Your task to perform on an android device: View the shopping cart on costco. Search for "usb-c to usb-b" on costco, select the first entry, and add it to the cart. Image 0: 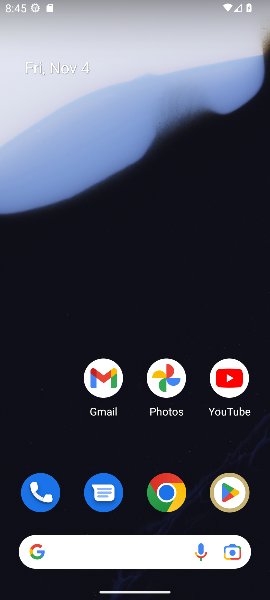
Step 0: drag from (137, 445) to (131, 22)
Your task to perform on an android device: View the shopping cart on costco. Search for "usb-c to usb-b" on costco, select the first entry, and add it to the cart. Image 1: 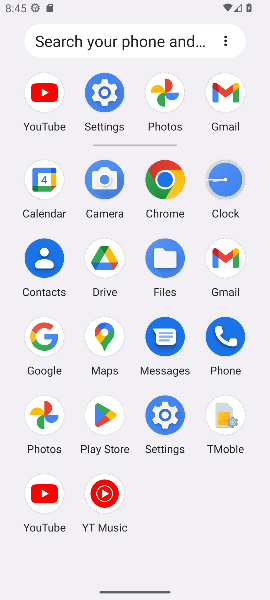
Step 1: click (163, 181)
Your task to perform on an android device: View the shopping cart on costco. Search for "usb-c to usb-b" on costco, select the first entry, and add it to the cart. Image 2: 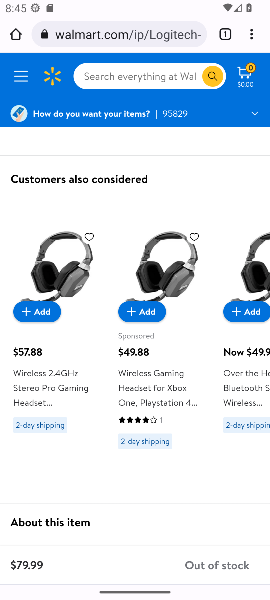
Step 2: click (143, 28)
Your task to perform on an android device: View the shopping cart on costco. Search for "usb-c to usb-b" on costco, select the first entry, and add it to the cart. Image 3: 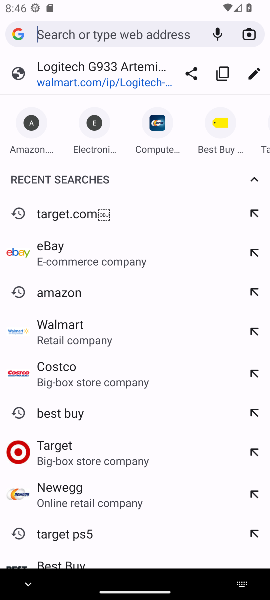
Step 3: type "costco.com"
Your task to perform on an android device: View the shopping cart on costco. Search for "usb-c to usb-b" on costco, select the first entry, and add it to the cart. Image 4: 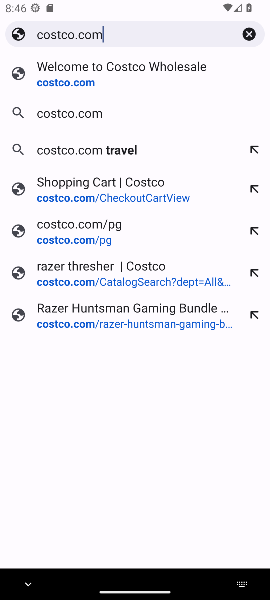
Step 4: press enter
Your task to perform on an android device: View the shopping cart on costco. Search for "usb-c to usb-b" on costco, select the first entry, and add it to the cart. Image 5: 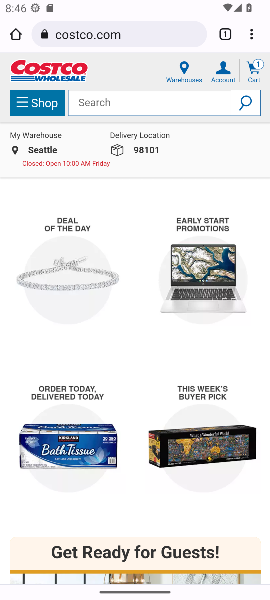
Step 5: click (253, 68)
Your task to perform on an android device: View the shopping cart on costco. Search for "usb-c to usb-b" on costco, select the first entry, and add it to the cart. Image 6: 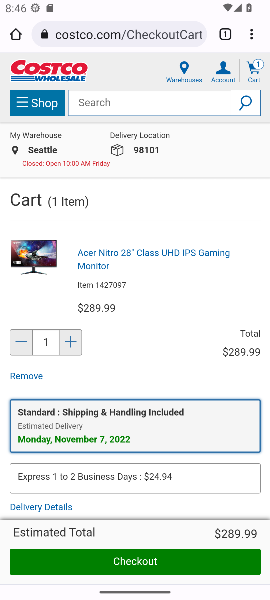
Step 6: click (177, 101)
Your task to perform on an android device: View the shopping cart on costco. Search for "usb-c to usb-b" on costco, select the first entry, and add it to the cart. Image 7: 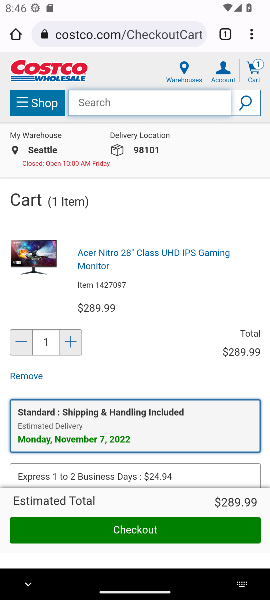
Step 7: type "usb-c to usb-b"
Your task to perform on an android device: View the shopping cart on costco. Search for "usb-c to usb-b" on costco, select the first entry, and add it to the cart. Image 8: 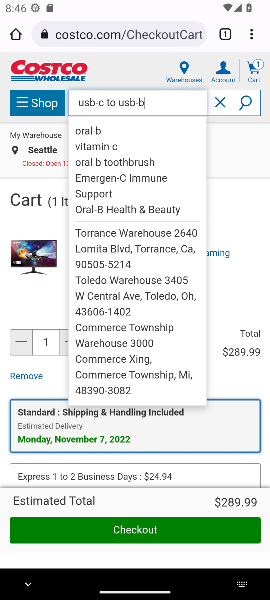
Step 8: press enter
Your task to perform on an android device: View the shopping cart on costco. Search for "usb-c to usb-b" on costco, select the first entry, and add it to the cart. Image 9: 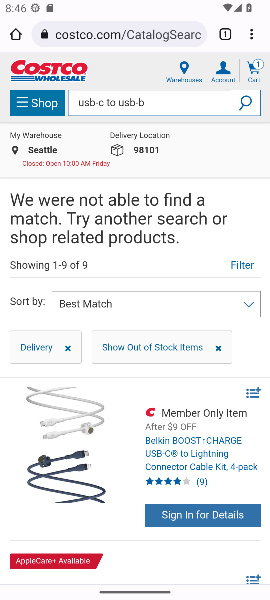
Step 9: task complete